Your task to perform on an android device: add a contact Image 0: 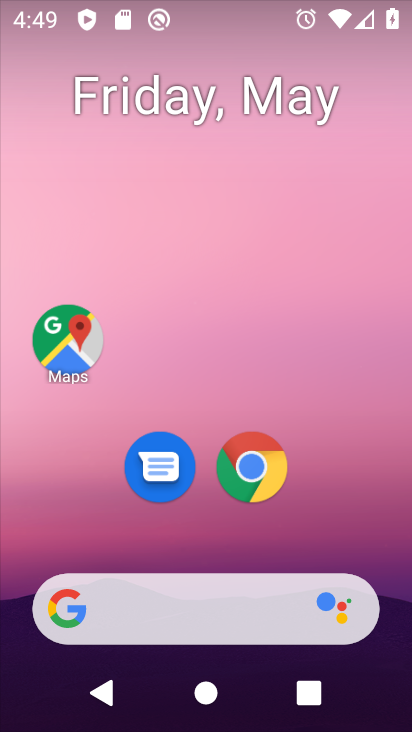
Step 0: drag from (314, 478) to (344, 136)
Your task to perform on an android device: add a contact Image 1: 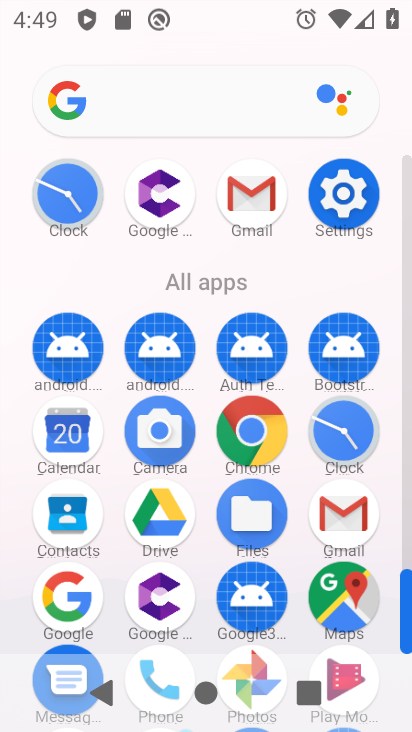
Step 1: click (72, 528)
Your task to perform on an android device: add a contact Image 2: 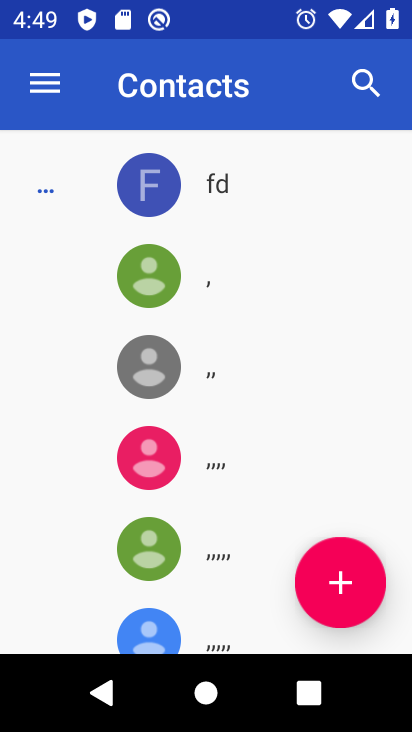
Step 2: click (354, 593)
Your task to perform on an android device: add a contact Image 3: 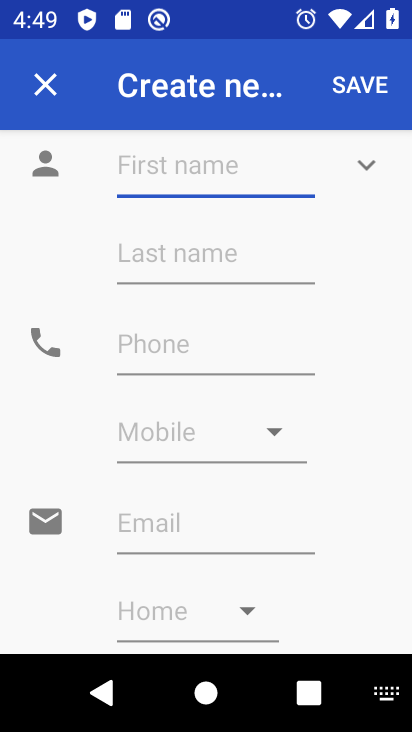
Step 3: type "shodh"
Your task to perform on an android device: add a contact Image 4: 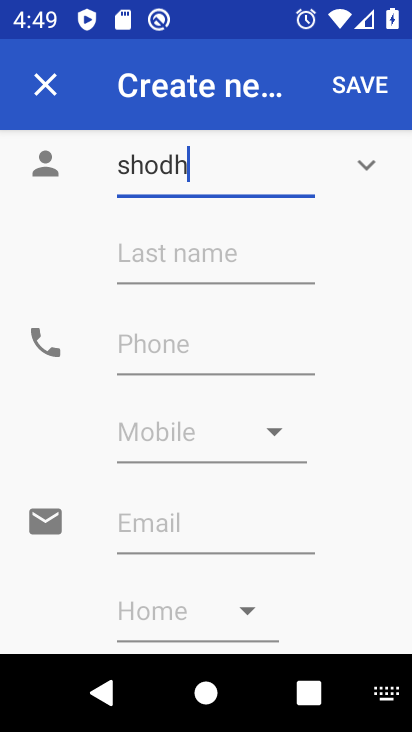
Step 4: click (343, 71)
Your task to perform on an android device: add a contact Image 5: 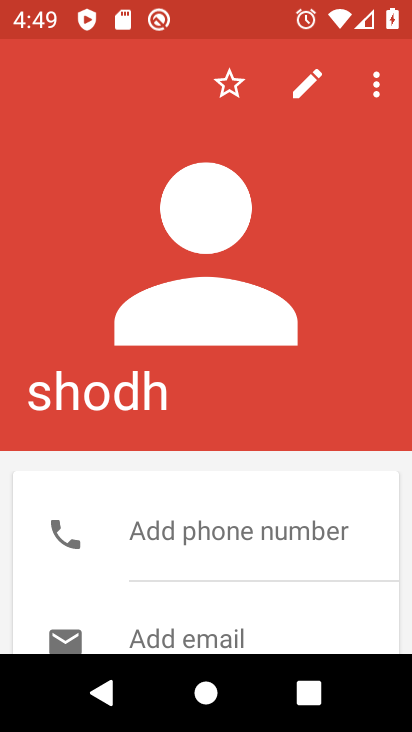
Step 5: task complete